Your task to perform on an android device: set an alarm Image 0: 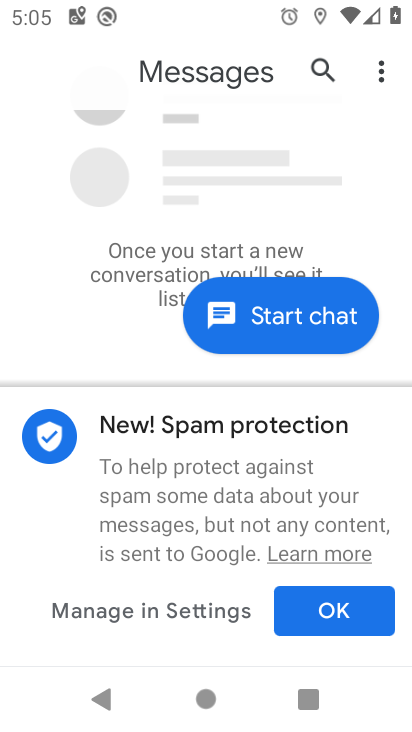
Step 0: press home button
Your task to perform on an android device: set an alarm Image 1: 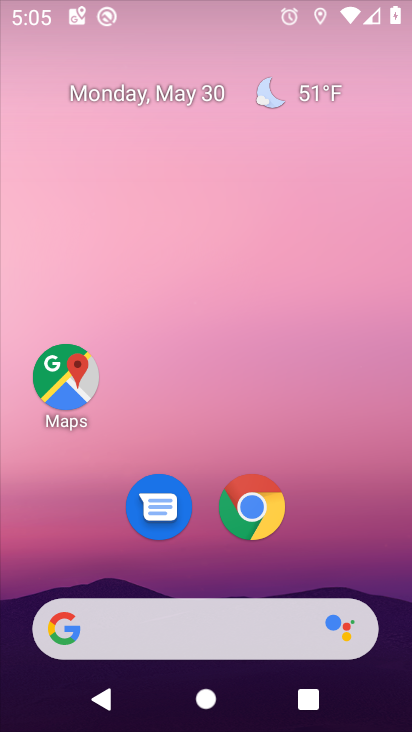
Step 1: drag from (330, 478) to (361, 1)
Your task to perform on an android device: set an alarm Image 2: 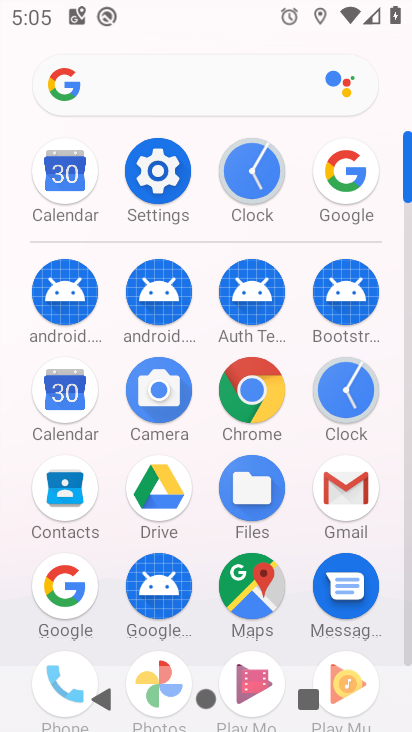
Step 2: click (253, 188)
Your task to perform on an android device: set an alarm Image 3: 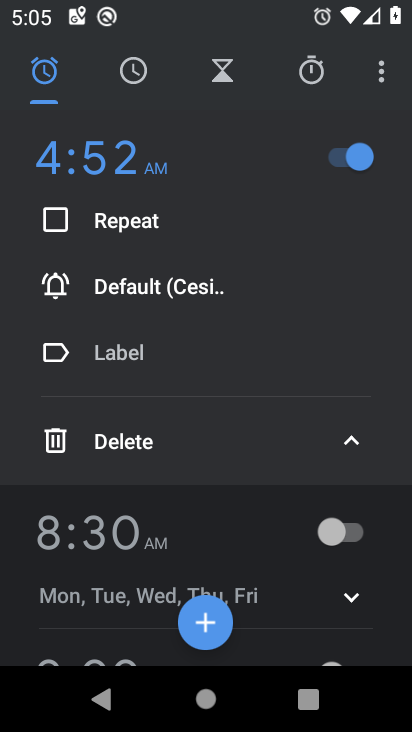
Step 3: click (175, 618)
Your task to perform on an android device: set an alarm Image 4: 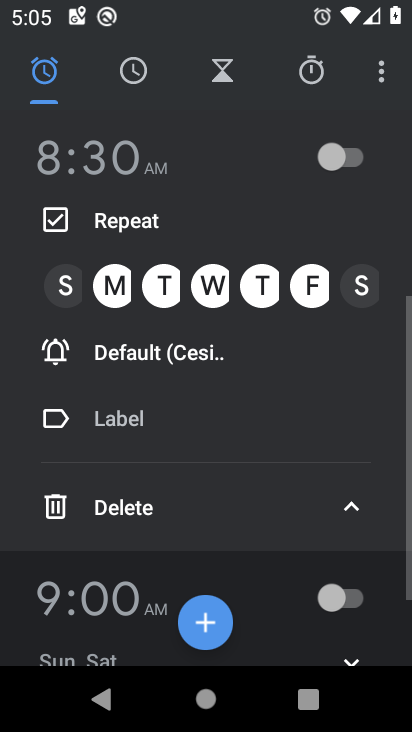
Step 4: click (195, 629)
Your task to perform on an android device: set an alarm Image 5: 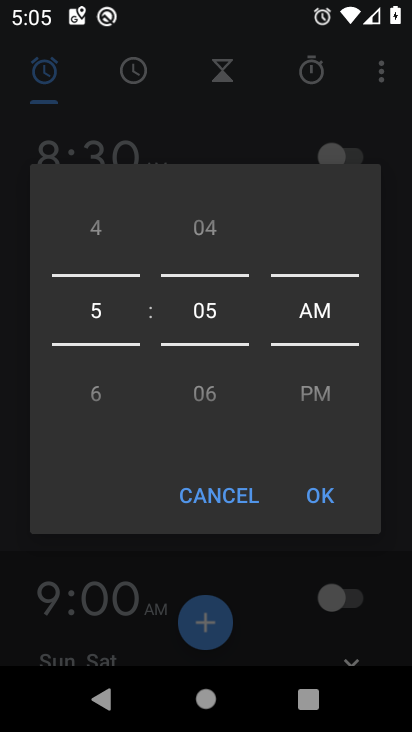
Step 5: click (308, 492)
Your task to perform on an android device: set an alarm Image 6: 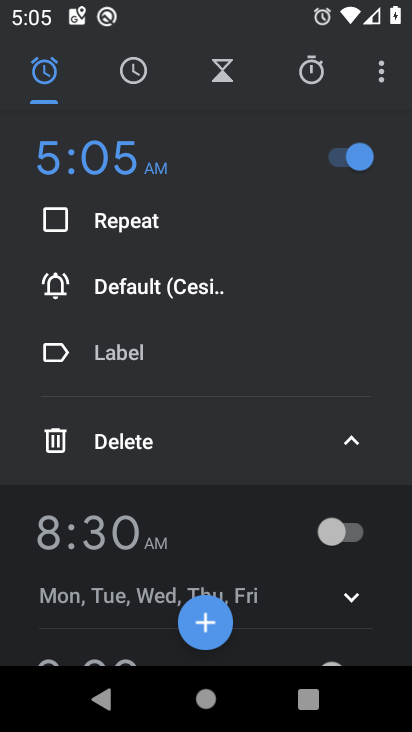
Step 6: task complete